Your task to perform on an android device: Open the phone app and click the voicemail tab. Image 0: 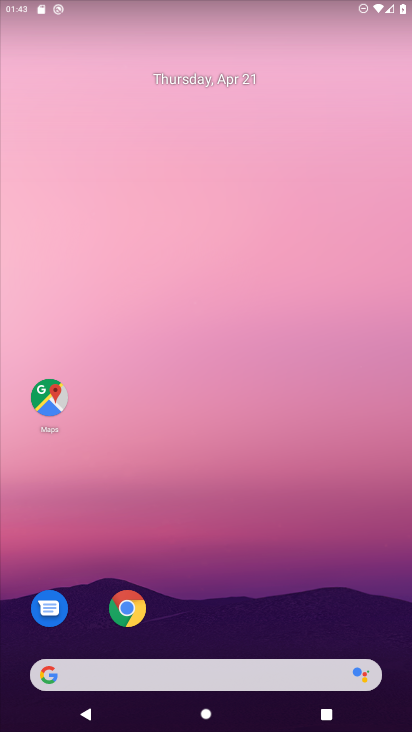
Step 0: drag from (245, 350) to (274, 92)
Your task to perform on an android device: Open the phone app and click the voicemail tab. Image 1: 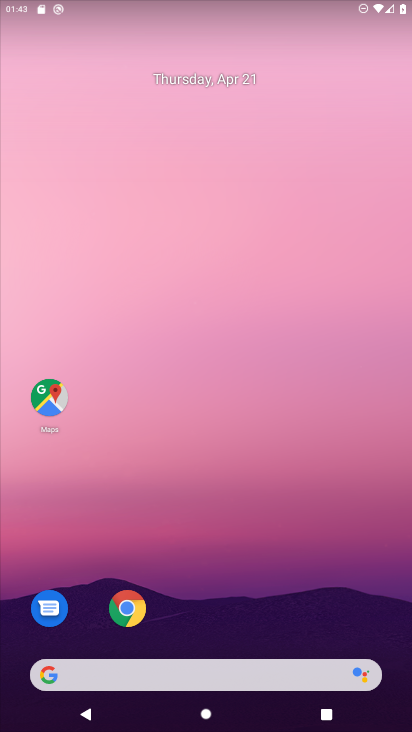
Step 1: click (294, 253)
Your task to perform on an android device: Open the phone app and click the voicemail tab. Image 2: 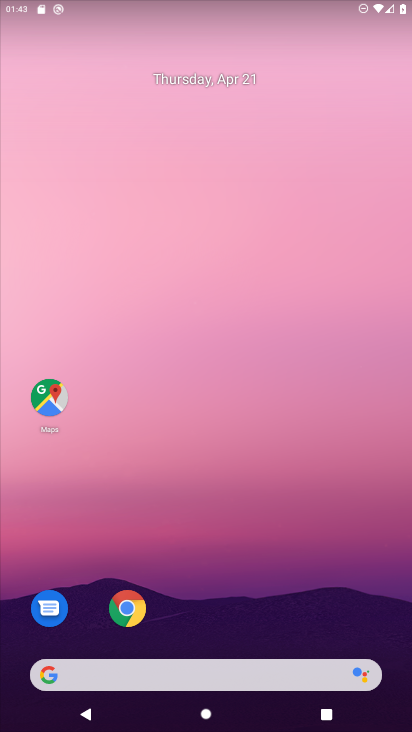
Step 2: drag from (256, 464) to (285, 212)
Your task to perform on an android device: Open the phone app and click the voicemail tab. Image 3: 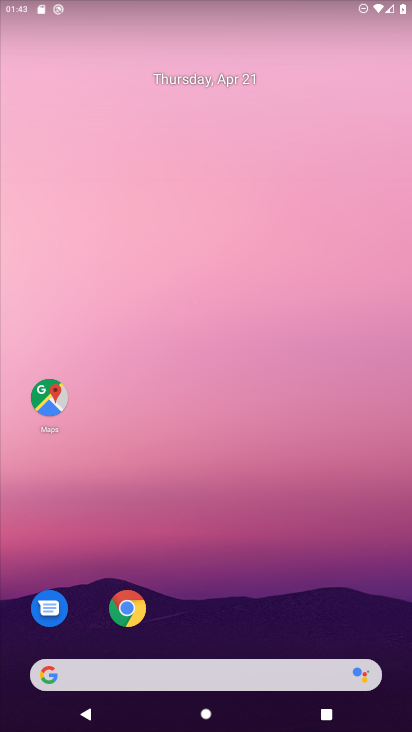
Step 3: drag from (242, 468) to (244, 46)
Your task to perform on an android device: Open the phone app and click the voicemail tab. Image 4: 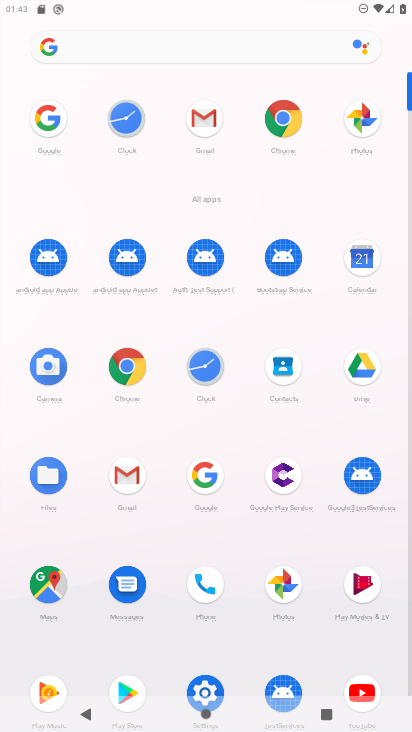
Step 4: click (196, 581)
Your task to perform on an android device: Open the phone app and click the voicemail tab. Image 5: 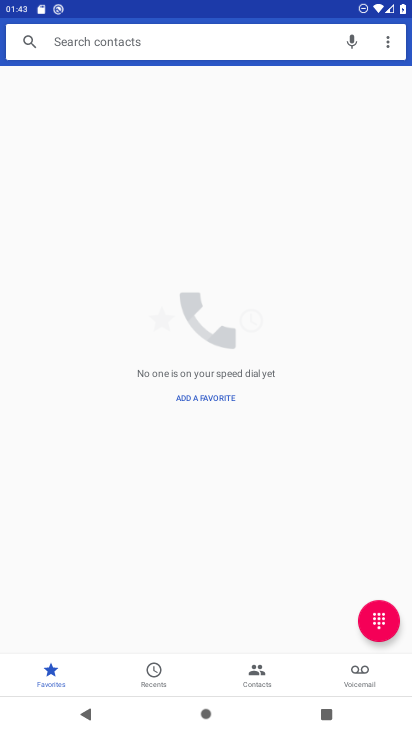
Step 5: click (366, 677)
Your task to perform on an android device: Open the phone app and click the voicemail tab. Image 6: 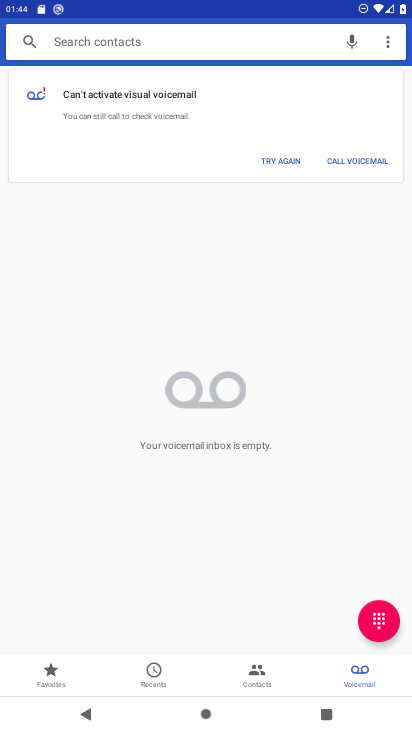
Step 6: task complete